Your task to perform on an android device: Open calendar and show me the third week of next month Image 0: 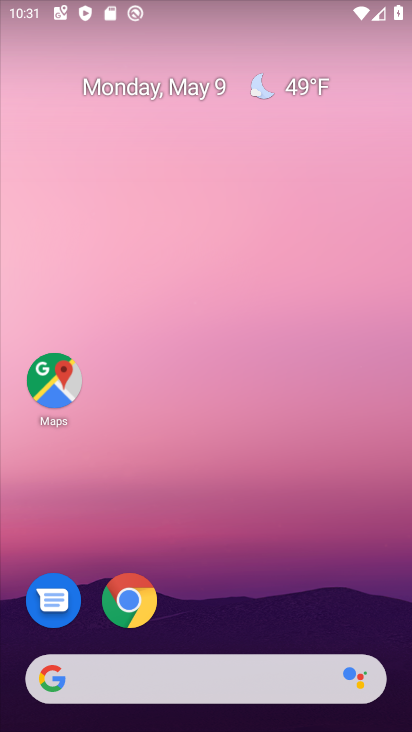
Step 0: press home button
Your task to perform on an android device: Open calendar and show me the third week of next month Image 1: 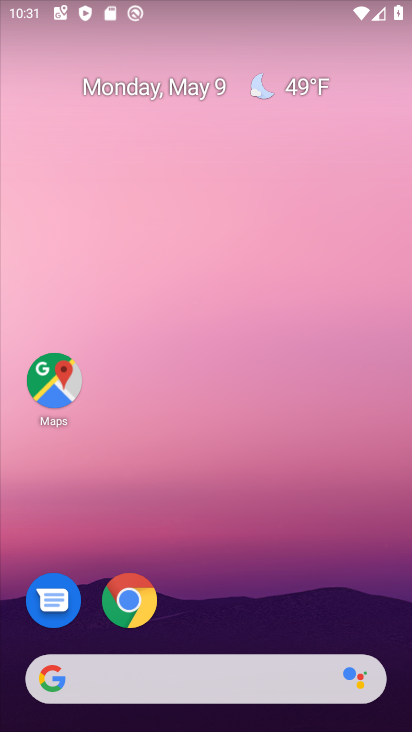
Step 1: drag from (381, 583) to (369, 99)
Your task to perform on an android device: Open calendar and show me the third week of next month Image 2: 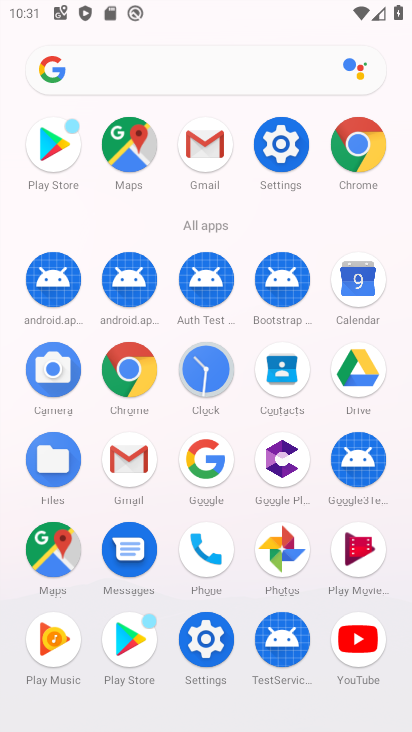
Step 2: click (358, 282)
Your task to perform on an android device: Open calendar and show me the third week of next month Image 3: 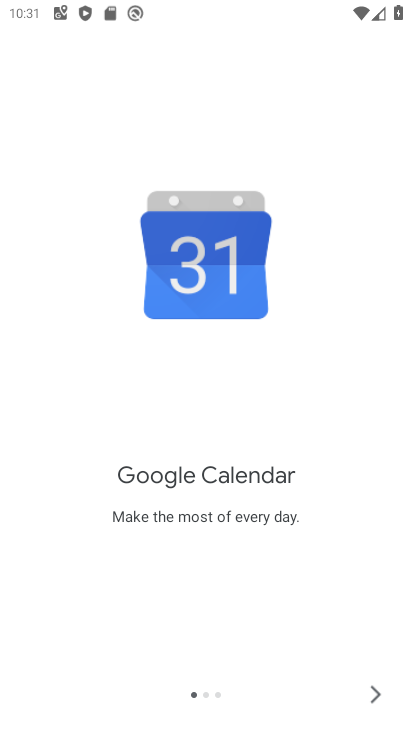
Step 3: click (382, 681)
Your task to perform on an android device: Open calendar and show me the third week of next month Image 4: 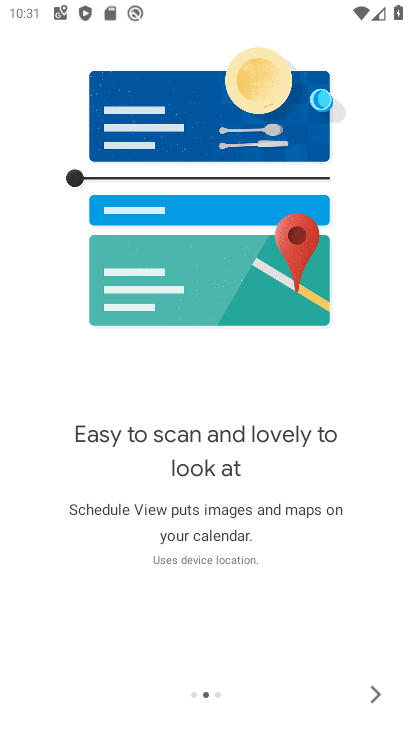
Step 4: click (381, 682)
Your task to perform on an android device: Open calendar and show me the third week of next month Image 5: 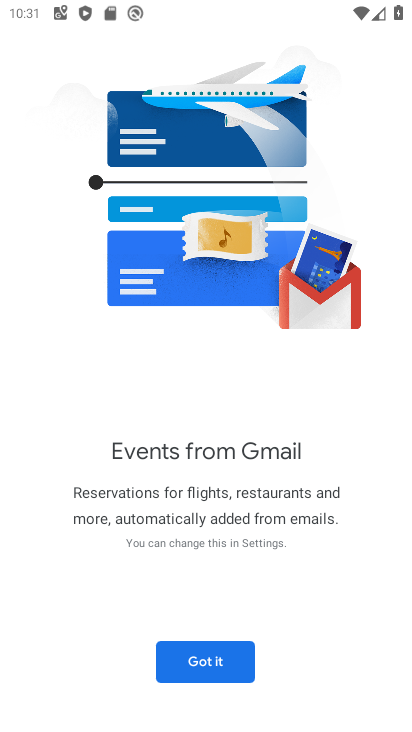
Step 5: click (381, 682)
Your task to perform on an android device: Open calendar and show me the third week of next month Image 6: 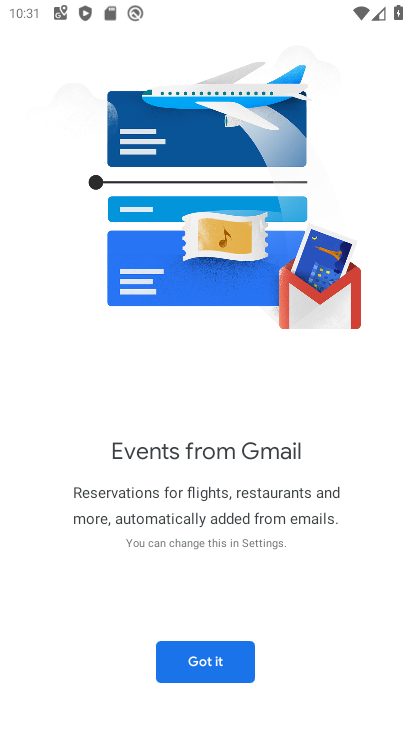
Step 6: click (228, 680)
Your task to perform on an android device: Open calendar and show me the third week of next month Image 7: 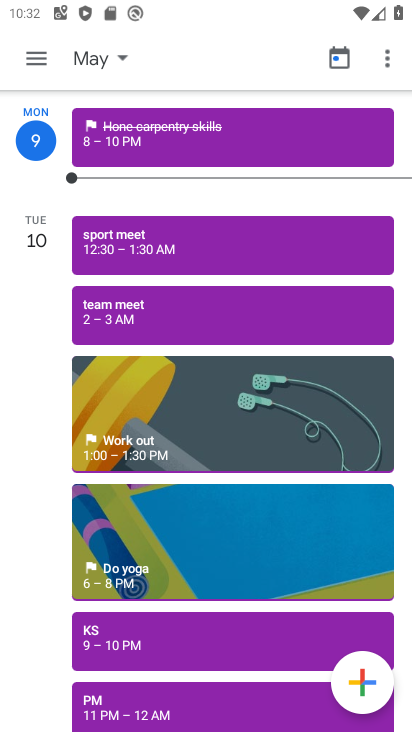
Step 7: click (97, 63)
Your task to perform on an android device: Open calendar and show me the third week of next month Image 8: 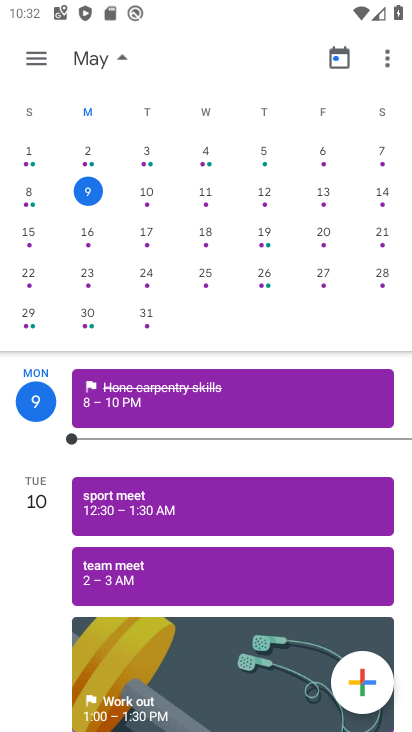
Step 8: drag from (379, 464) to (76, 480)
Your task to perform on an android device: Open calendar and show me the third week of next month Image 9: 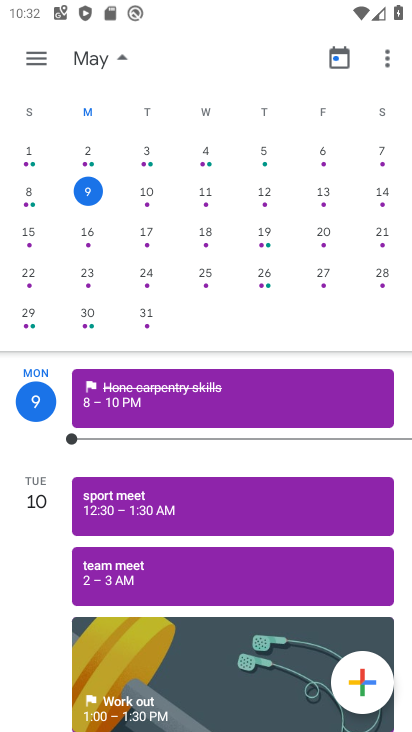
Step 9: drag from (349, 158) to (23, 183)
Your task to perform on an android device: Open calendar and show me the third week of next month Image 10: 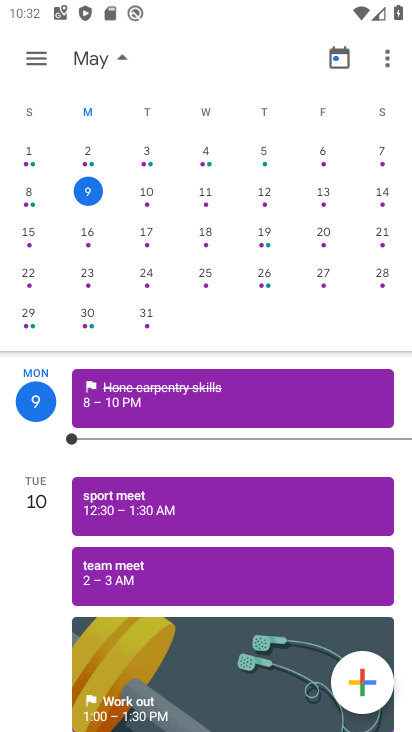
Step 10: drag from (367, 214) to (11, 209)
Your task to perform on an android device: Open calendar and show me the third week of next month Image 11: 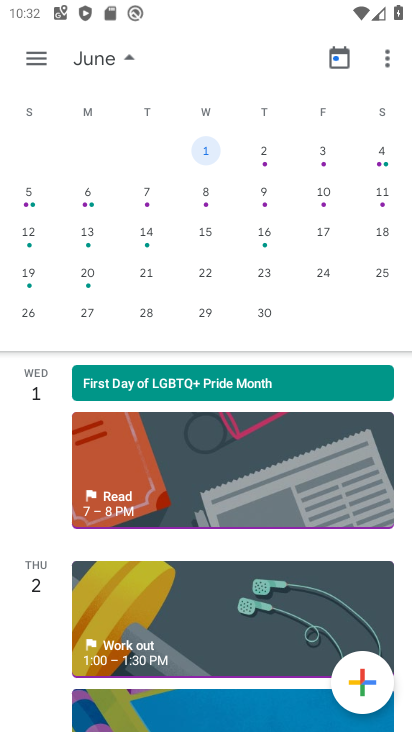
Step 11: click (33, 230)
Your task to perform on an android device: Open calendar and show me the third week of next month Image 12: 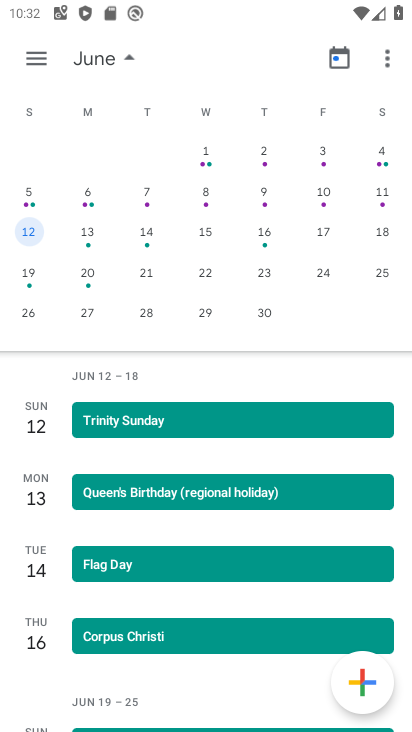
Step 12: task complete